Your task to perform on an android device: check out phone information Image 0: 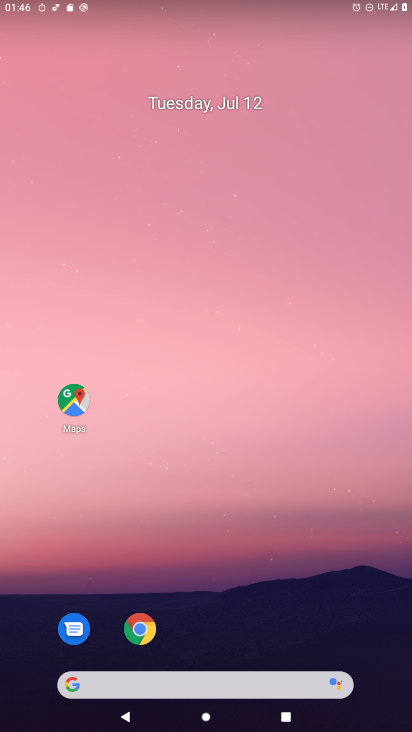
Step 0: drag from (56, 564) to (278, 23)
Your task to perform on an android device: check out phone information Image 1: 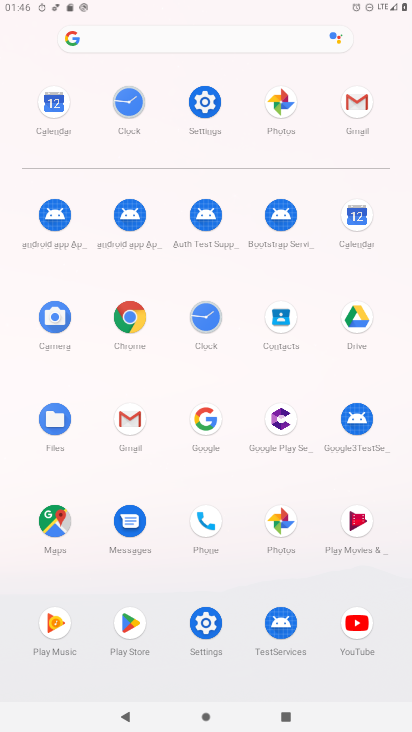
Step 1: click (206, 534)
Your task to perform on an android device: check out phone information Image 2: 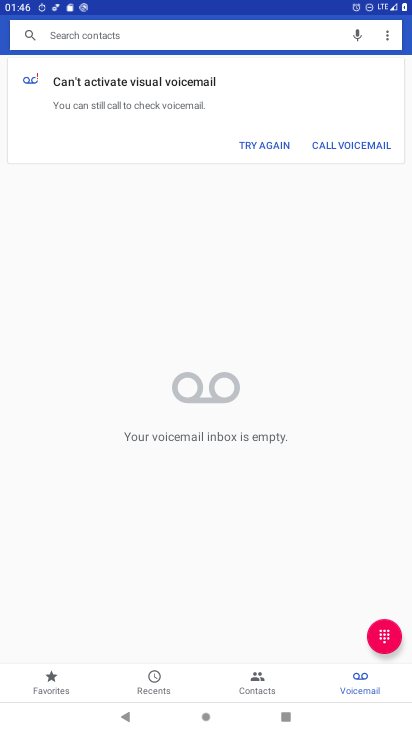
Step 2: task complete